Your task to perform on an android device: Search for pizza restaurants on Maps Image 0: 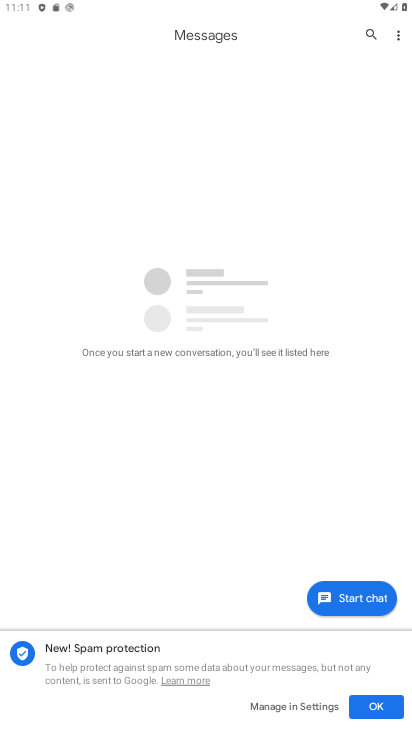
Step 0: press home button
Your task to perform on an android device: Search for pizza restaurants on Maps Image 1: 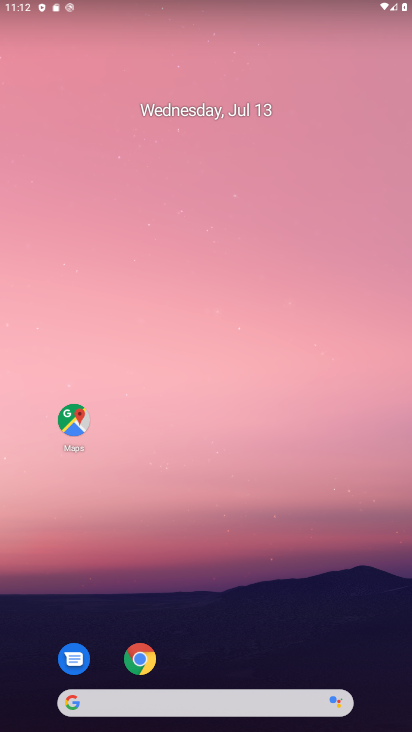
Step 1: click (60, 417)
Your task to perform on an android device: Search for pizza restaurants on Maps Image 2: 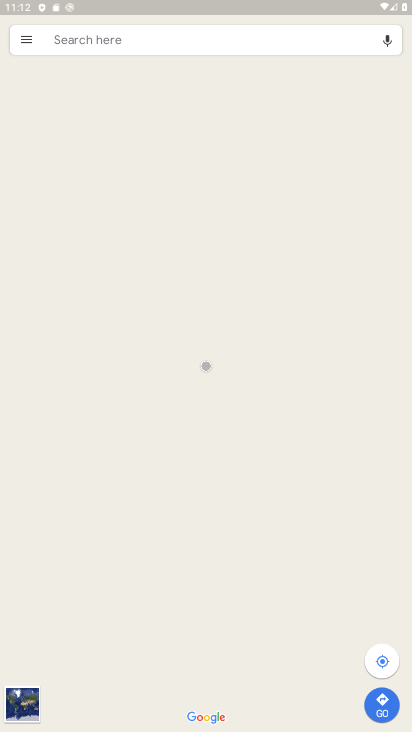
Step 2: click (226, 35)
Your task to perform on an android device: Search for pizza restaurants on Maps Image 3: 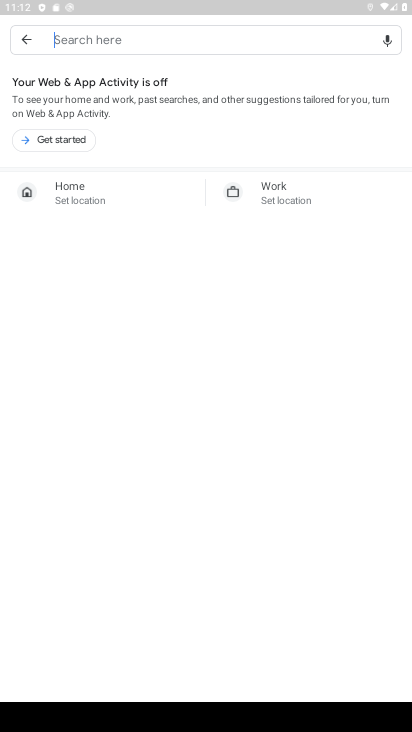
Step 3: type "pizza restaurants"
Your task to perform on an android device: Search for pizza restaurants on Maps Image 4: 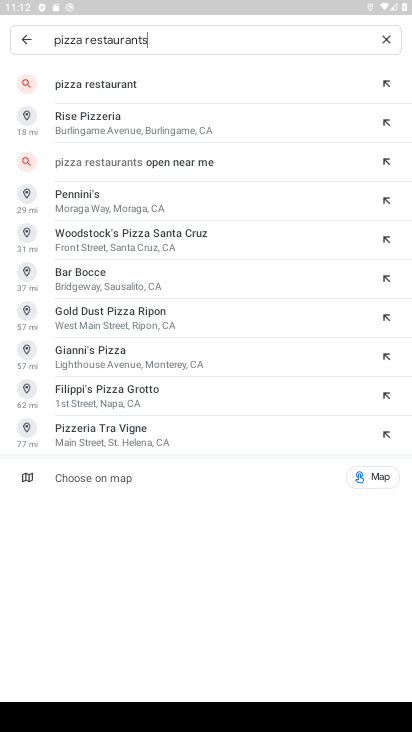
Step 4: click (80, 79)
Your task to perform on an android device: Search for pizza restaurants on Maps Image 5: 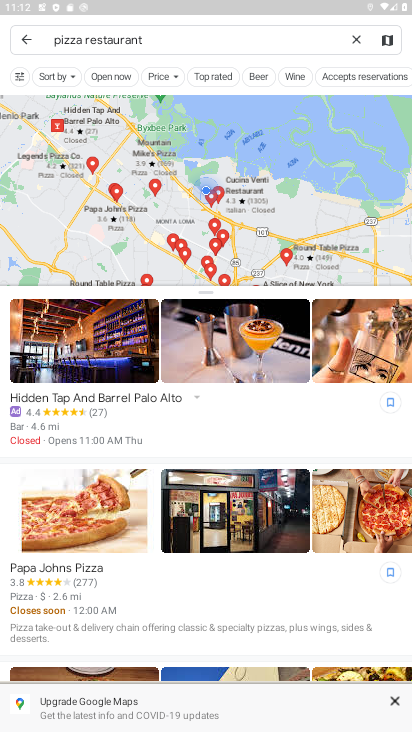
Step 5: task complete